Your task to perform on an android device: Open calendar and show me the third week of next month Image 0: 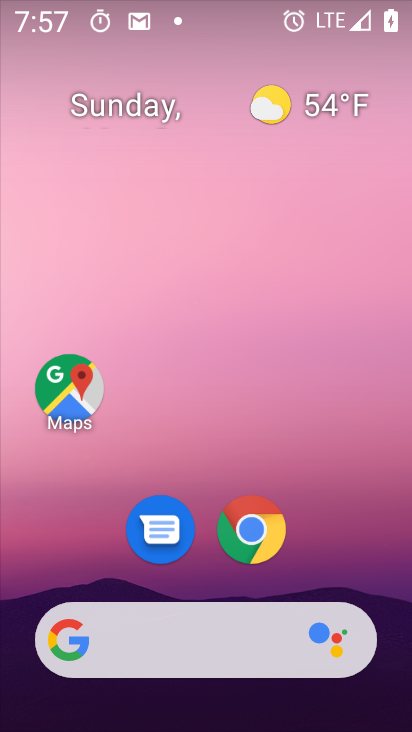
Step 0: drag from (275, 581) to (317, 94)
Your task to perform on an android device: Open calendar and show me the third week of next month Image 1: 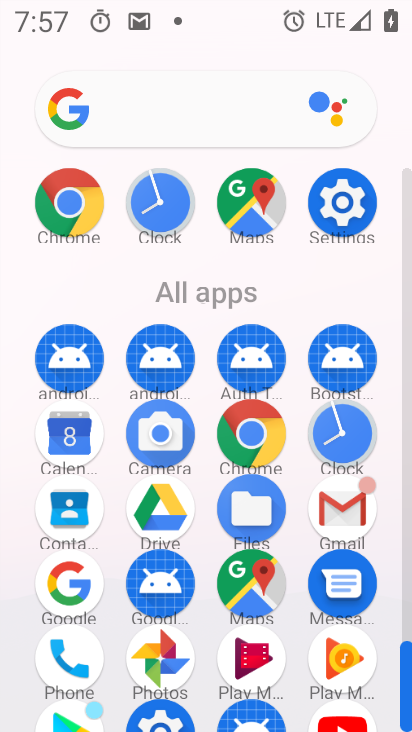
Step 1: click (69, 430)
Your task to perform on an android device: Open calendar and show me the third week of next month Image 2: 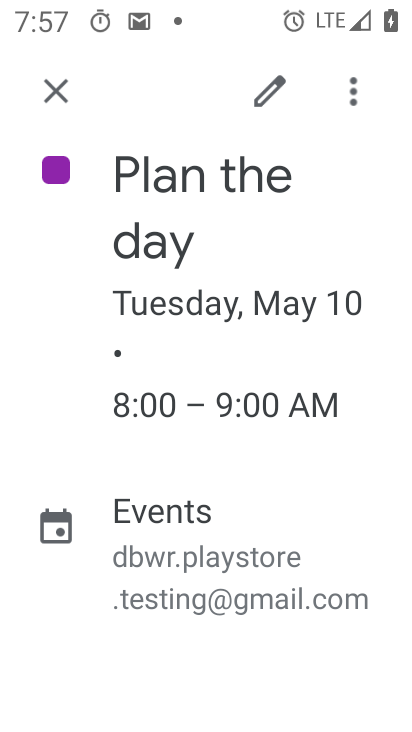
Step 2: click (63, 92)
Your task to perform on an android device: Open calendar and show me the third week of next month Image 3: 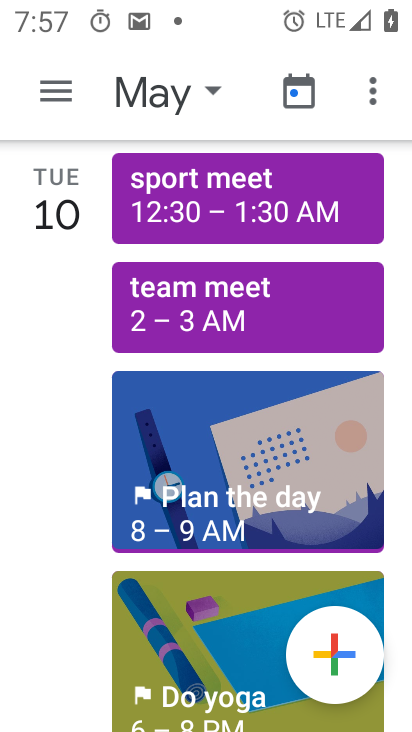
Step 3: click (155, 87)
Your task to perform on an android device: Open calendar and show me the third week of next month Image 4: 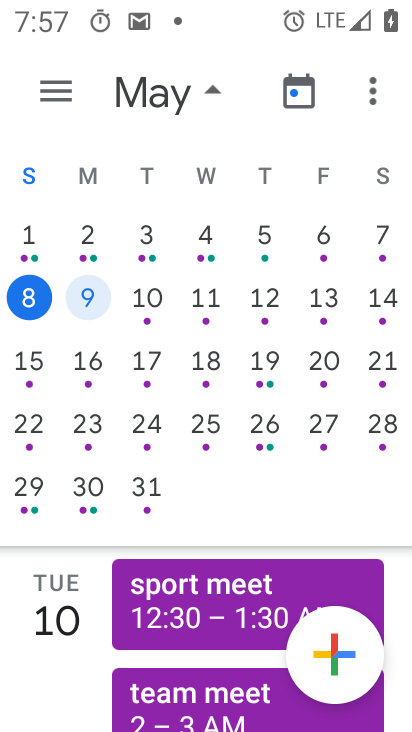
Step 4: drag from (306, 273) to (14, 254)
Your task to perform on an android device: Open calendar and show me the third week of next month Image 5: 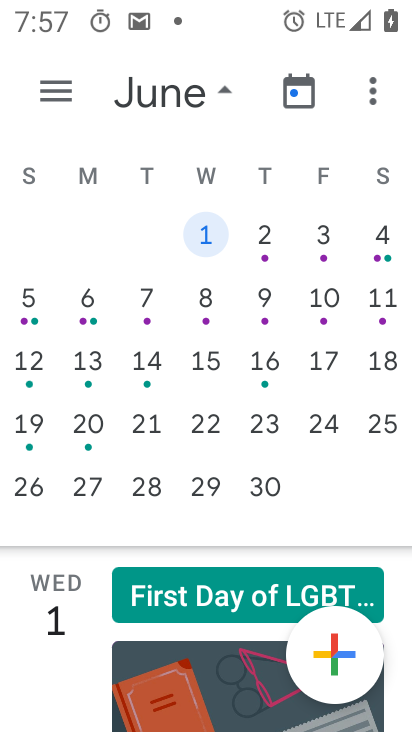
Step 5: click (58, 86)
Your task to perform on an android device: Open calendar and show me the third week of next month Image 6: 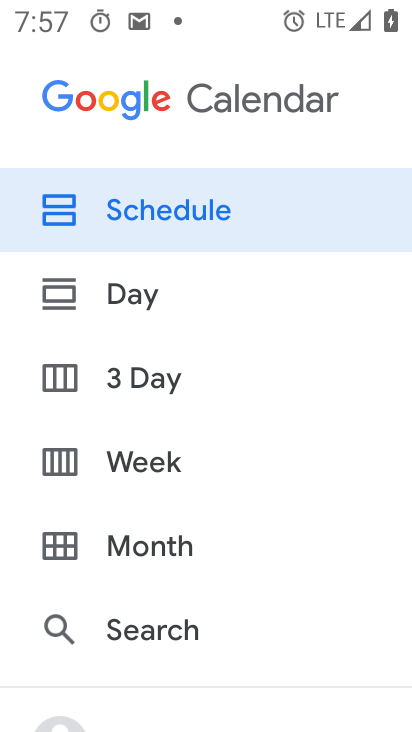
Step 6: click (171, 475)
Your task to perform on an android device: Open calendar and show me the third week of next month Image 7: 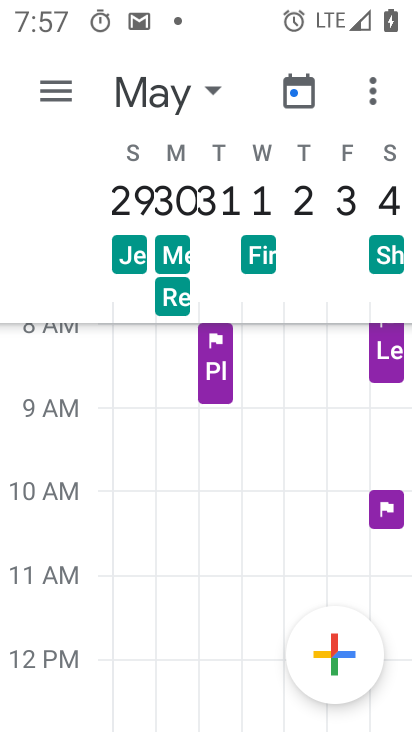
Step 7: task complete